Your task to perform on an android device: Go to Amazon Image 0: 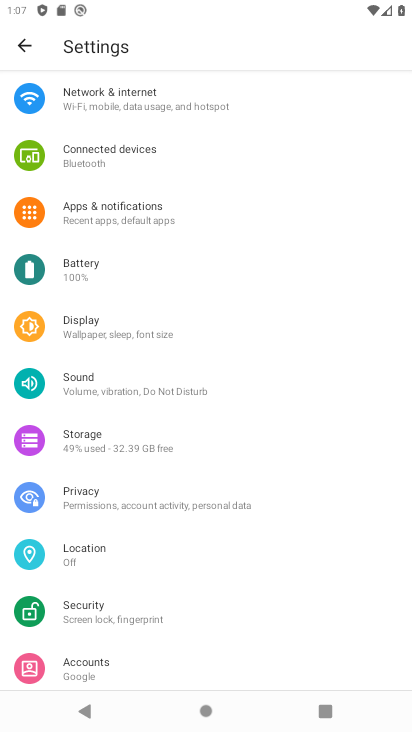
Step 0: press home button
Your task to perform on an android device: Go to Amazon Image 1: 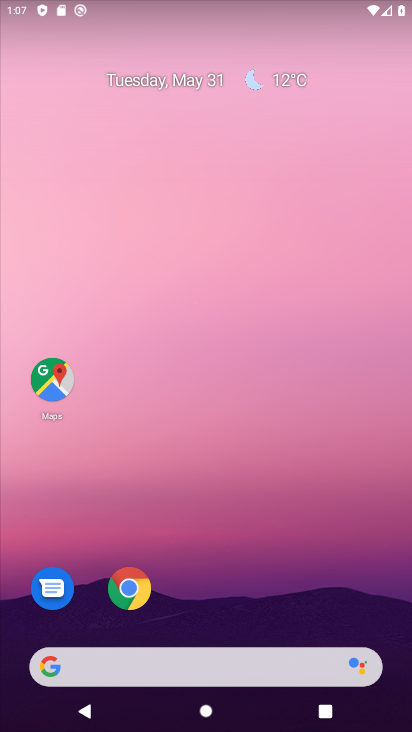
Step 1: click (134, 589)
Your task to perform on an android device: Go to Amazon Image 2: 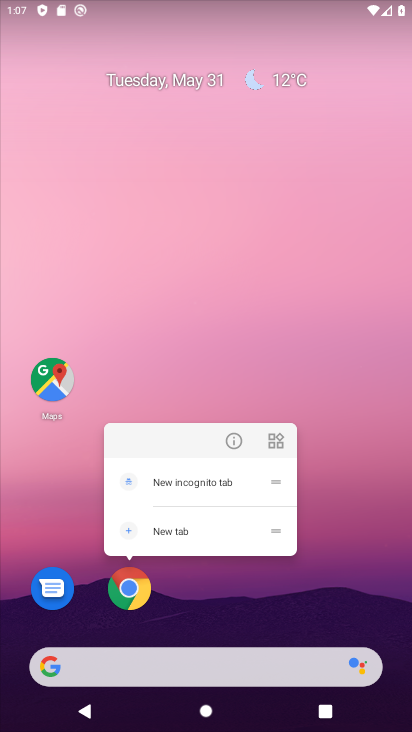
Step 2: click (135, 586)
Your task to perform on an android device: Go to Amazon Image 3: 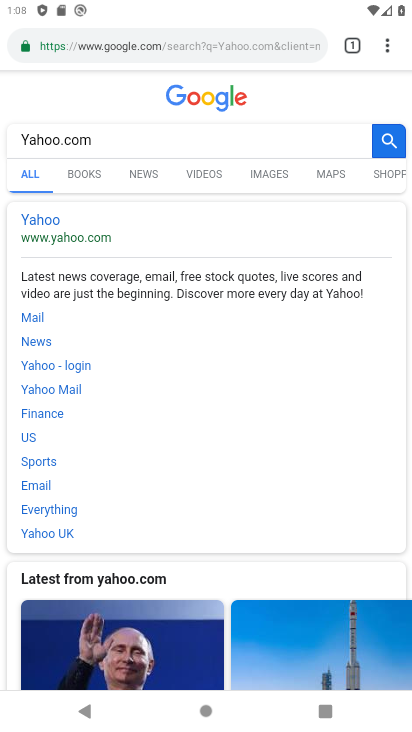
Step 3: click (309, 42)
Your task to perform on an android device: Go to Amazon Image 4: 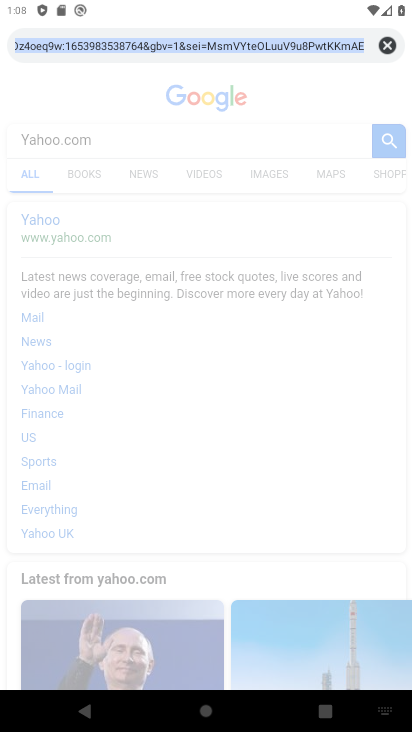
Step 4: click (386, 43)
Your task to perform on an android device: Go to Amazon Image 5: 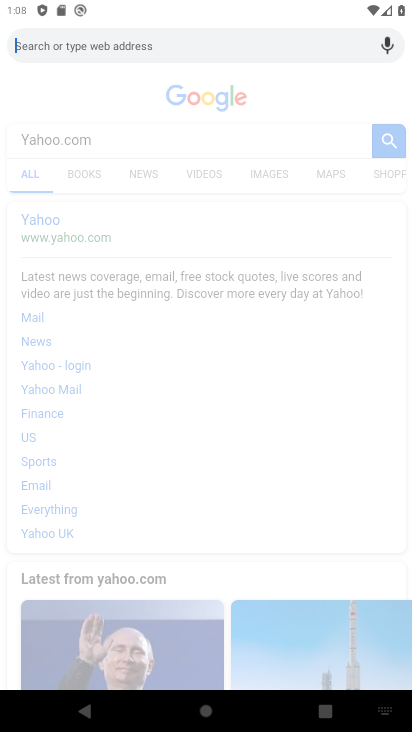
Step 5: type "Amazon"
Your task to perform on an android device: Go to Amazon Image 6: 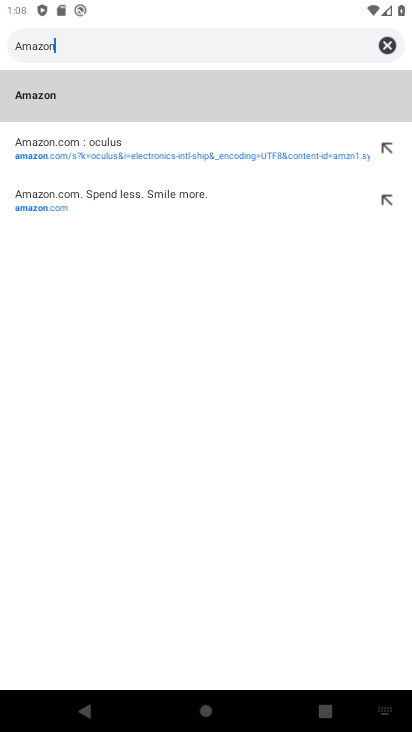
Step 6: click (46, 79)
Your task to perform on an android device: Go to Amazon Image 7: 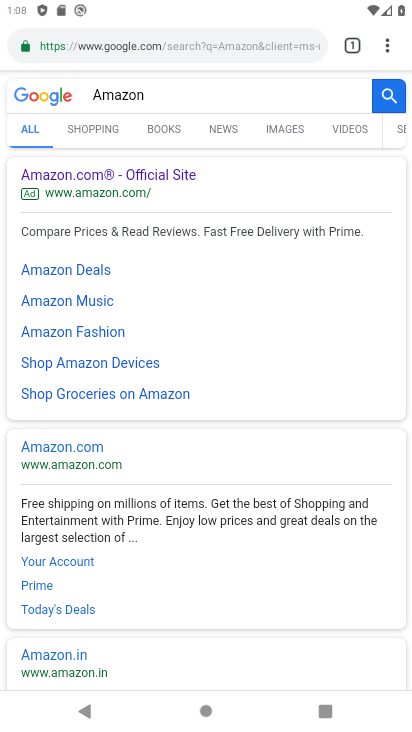
Step 7: task complete